Your task to perform on an android device: turn vacation reply on in the gmail app Image 0: 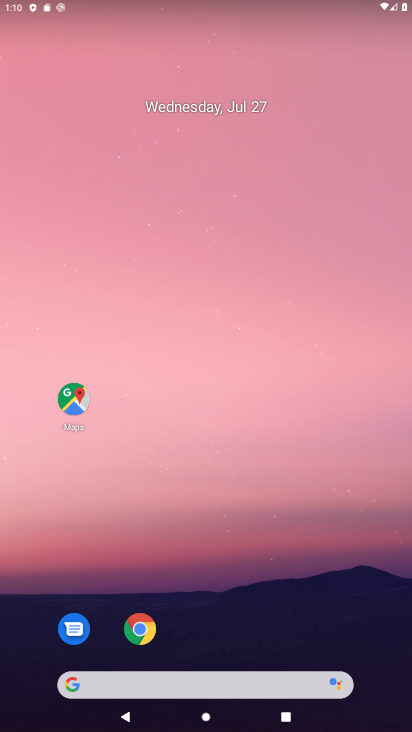
Step 0: press home button
Your task to perform on an android device: turn vacation reply on in the gmail app Image 1: 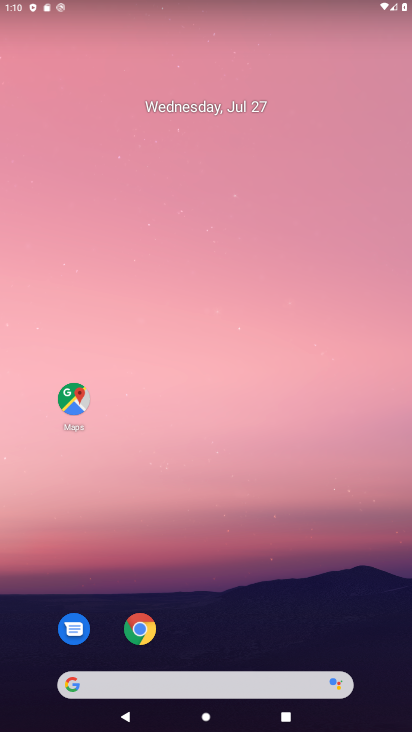
Step 1: drag from (223, 653) to (259, 102)
Your task to perform on an android device: turn vacation reply on in the gmail app Image 2: 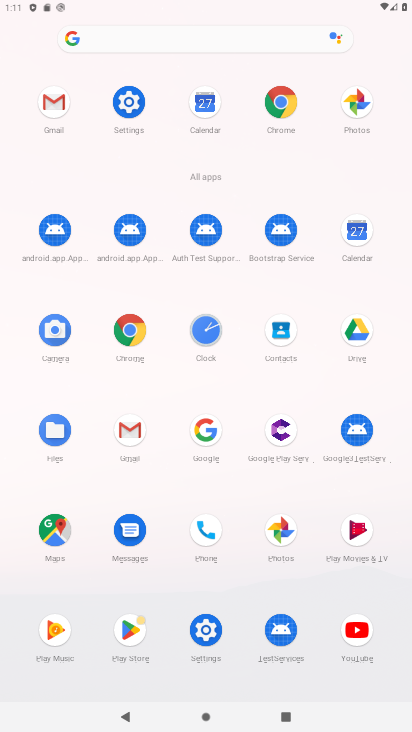
Step 2: click (53, 102)
Your task to perform on an android device: turn vacation reply on in the gmail app Image 3: 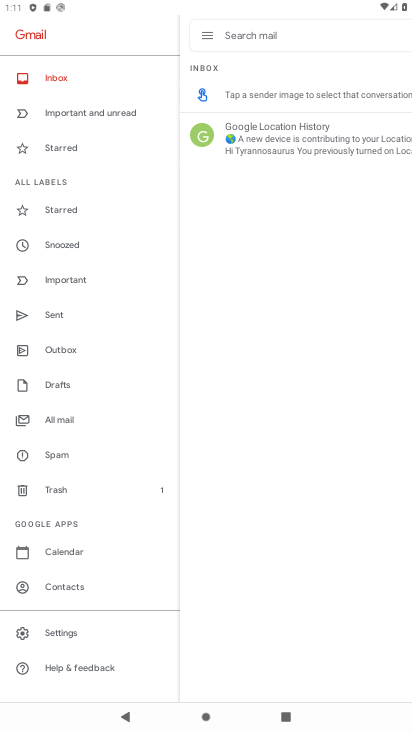
Step 3: click (68, 627)
Your task to perform on an android device: turn vacation reply on in the gmail app Image 4: 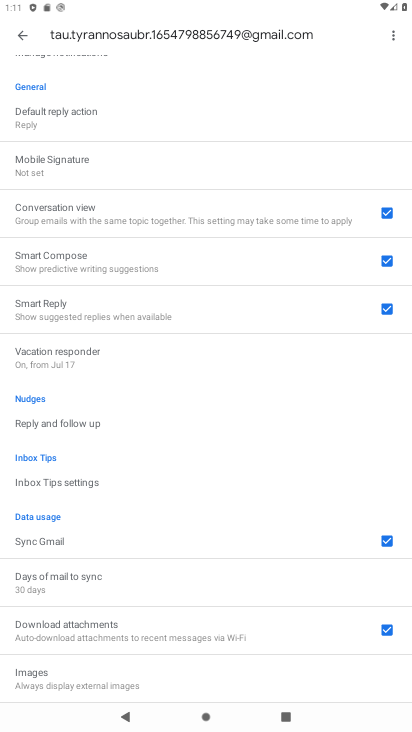
Step 4: click (55, 354)
Your task to perform on an android device: turn vacation reply on in the gmail app Image 5: 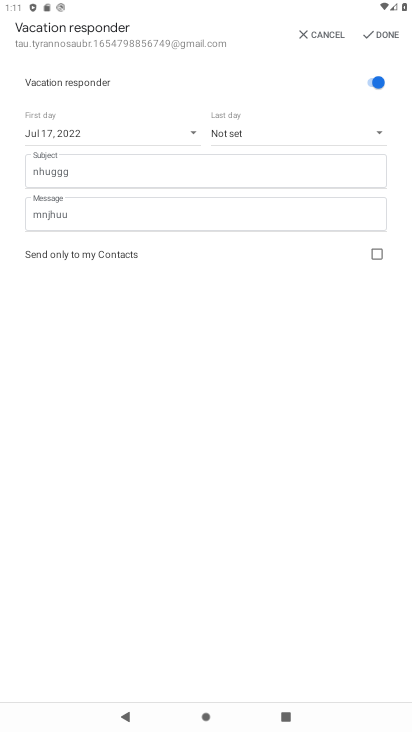
Step 5: task complete